Your task to perform on an android device: turn on priority inbox in the gmail app Image 0: 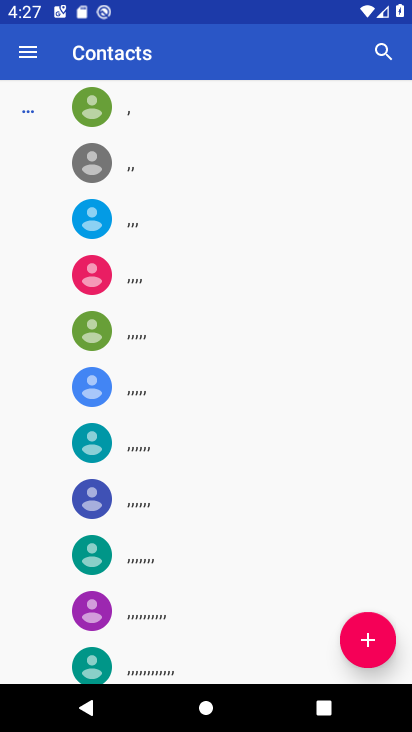
Step 0: press home button
Your task to perform on an android device: turn on priority inbox in the gmail app Image 1: 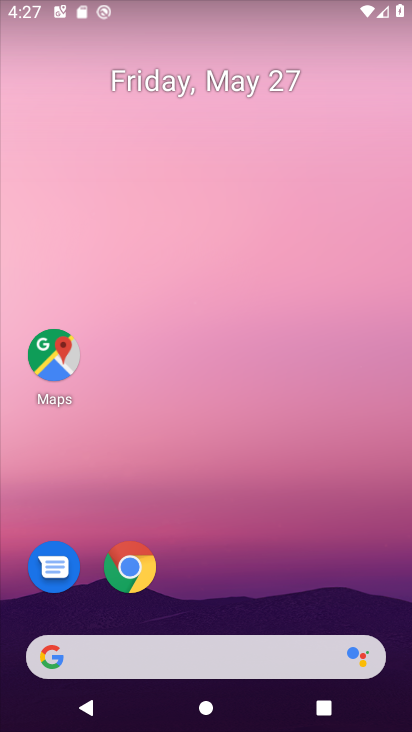
Step 1: drag from (241, 592) to (241, 75)
Your task to perform on an android device: turn on priority inbox in the gmail app Image 2: 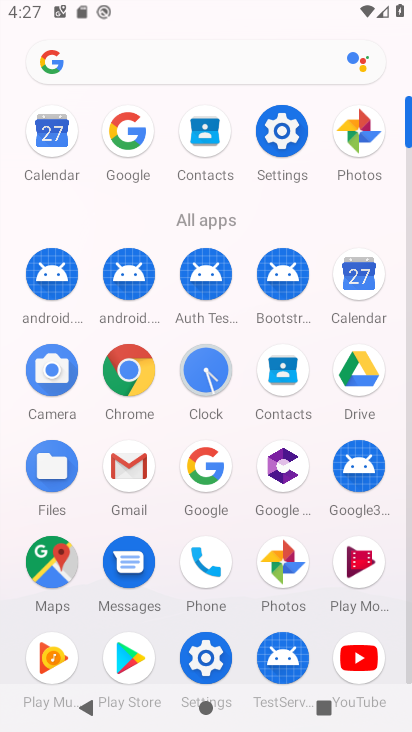
Step 2: click (131, 470)
Your task to perform on an android device: turn on priority inbox in the gmail app Image 3: 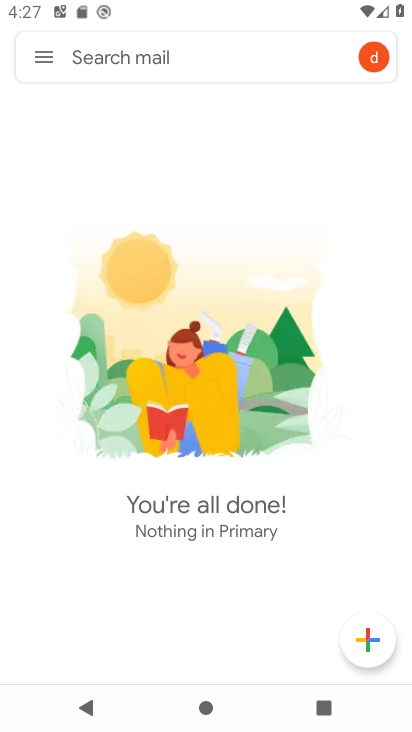
Step 3: click (51, 65)
Your task to perform on an android device: turn on priority inbox in the gmail app Image 4: 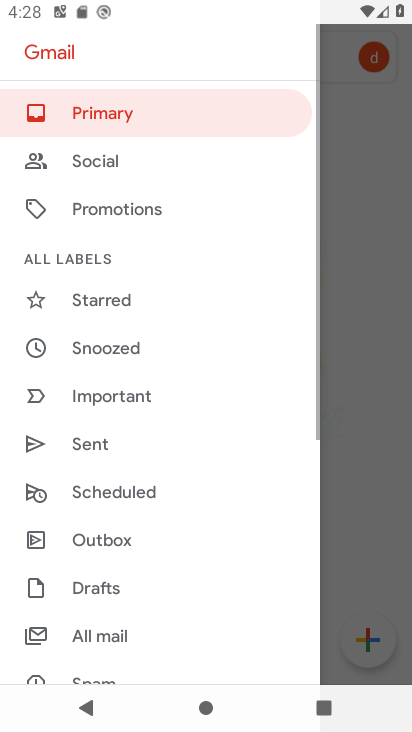
Step 4: drag from (182, 574) to (164, 149)
Your task to perform on an android device: turn on priority inbox in the gmail app Image 5: 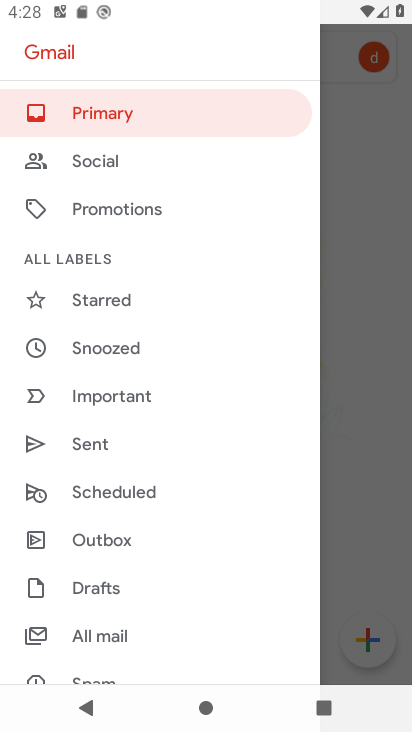
Step 5: drag from (81, 632) to (98, 171)
Your task to perform on an android device: turn on priority inbox in the gmail app Image 6: 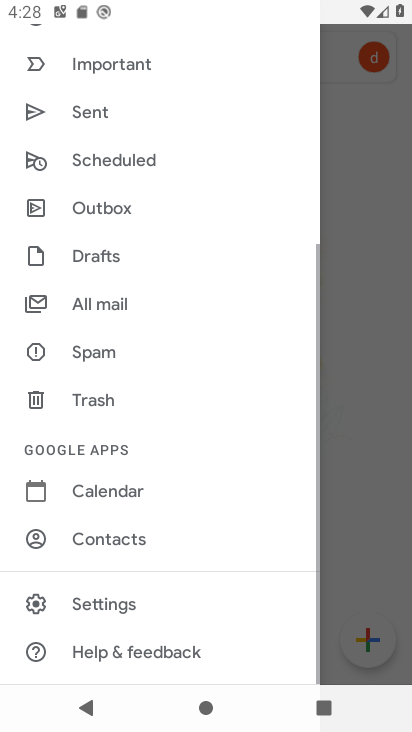
Step 6: click (93, 607)
Your task to perform on an android device: turn on priority inbox in the gmail app Image 7: 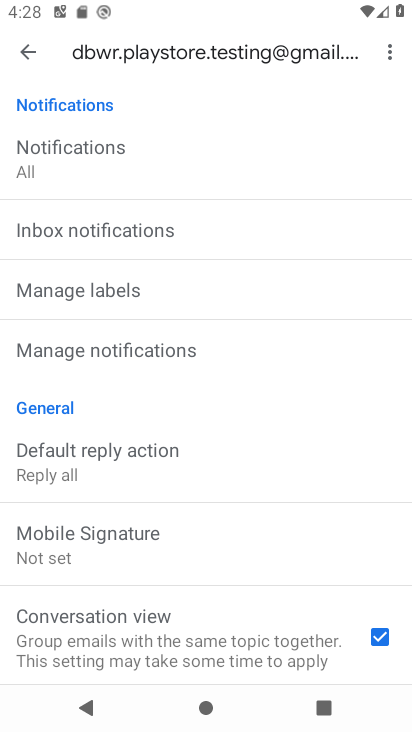
Step 7: drag from (94, 244) to (117, 585)
Your task to perform on an android device: turn on priority inbox in the gmail app Image 8: 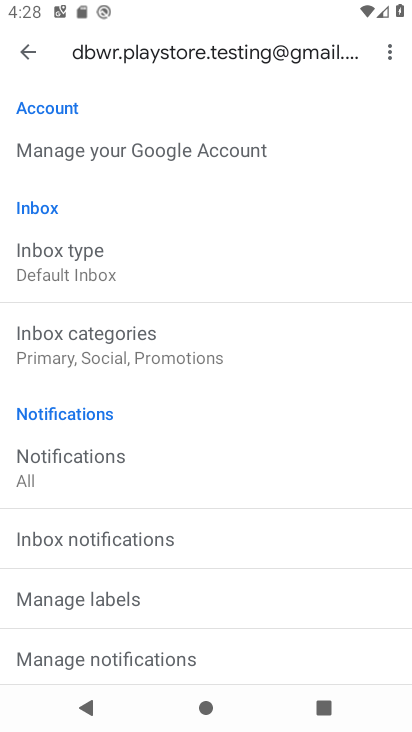
Step 8: click (87, 271)
Your task to perform on an android device: turn on priority inbox in the gmail app Image 9: 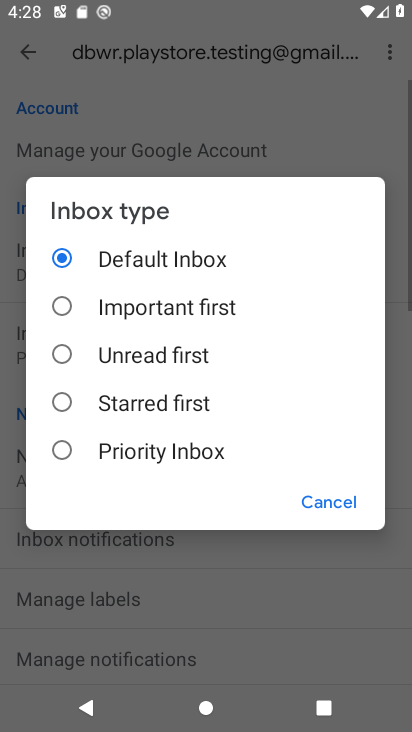
Step 9: click (135, 452)
Your task to perform on an android device: turn on priority inbox in the gmail app Image 10: 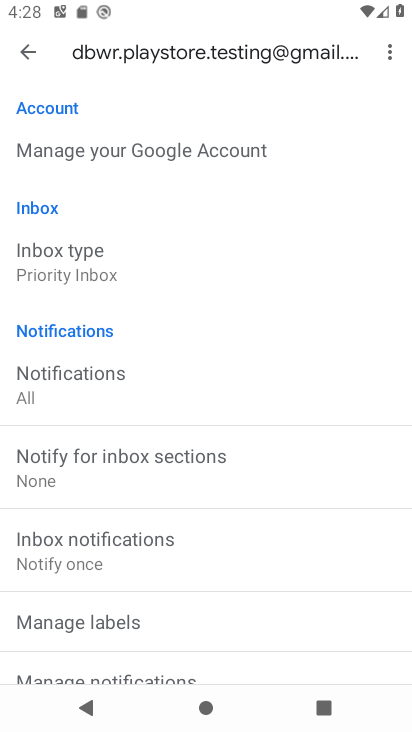
Step 10: task complete